Your task to perform on an android device: allow cookies in the chrome app Image 0: 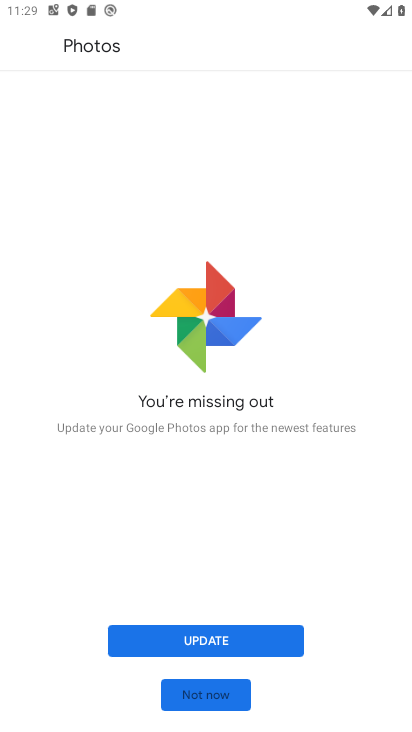
Step 0: press home button
Your task to perform on an android device: allow cookies in the chrome app Image 1: 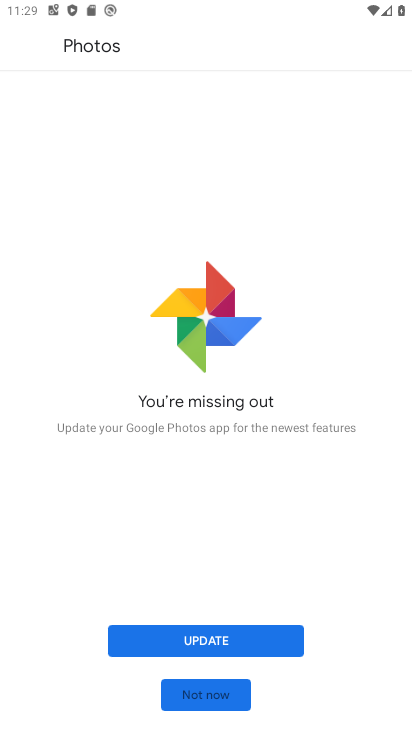
Step 1: press home button
Your task to perform on an android device: allow cookies in the chrome app Image 2: 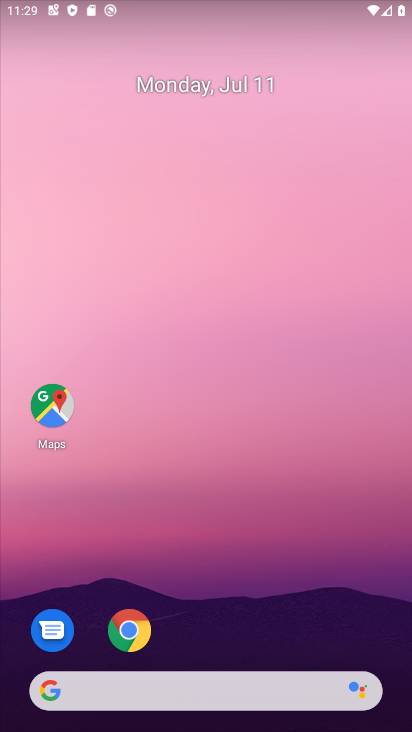
Step 2: click (138, 618)
Your task to perform on an android device: allow cookies in the chrome app Image 3: 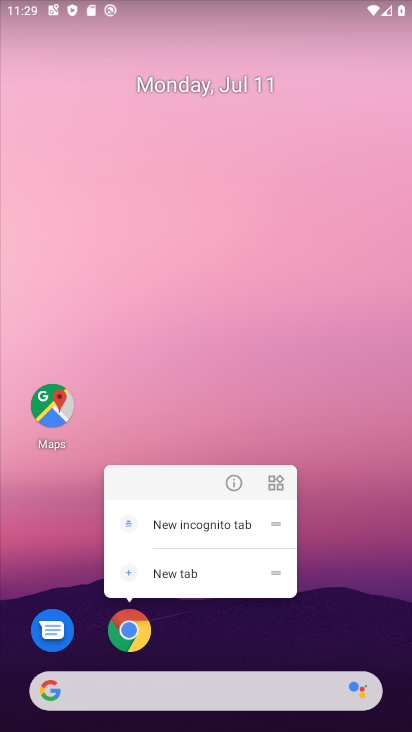
Step 3: click (134, 618)
Your task to perform on an android device: allow cookies in the chrome app Image 4: 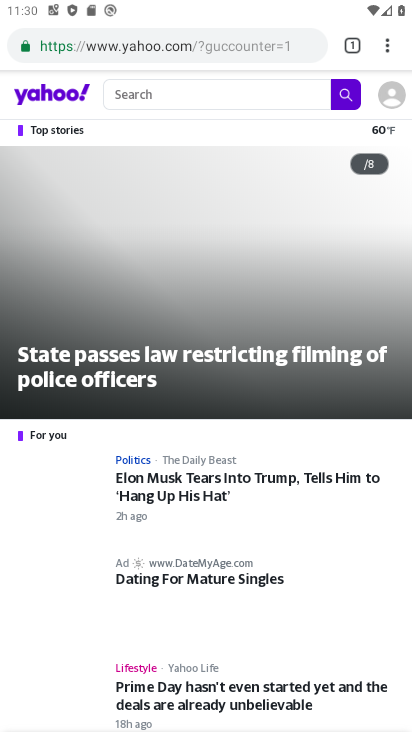
Step 4: click (392, 33)
Your task to perform on an android device: allow cookies in the chrome app Image 5: 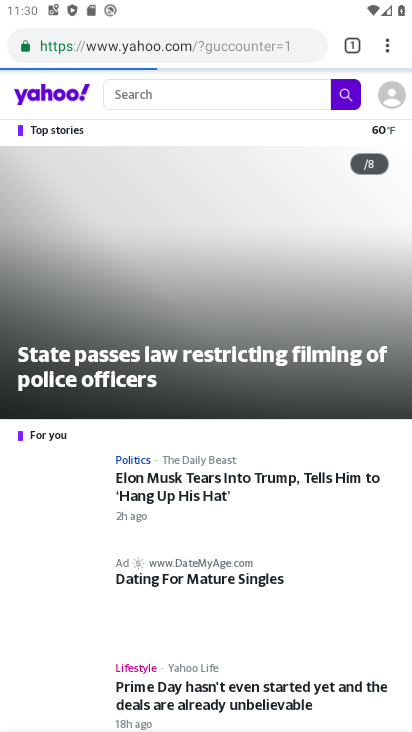
Step 5: click (391, 33)
Your task to perform on an android device: allow cookies in the chrome app Image 6: 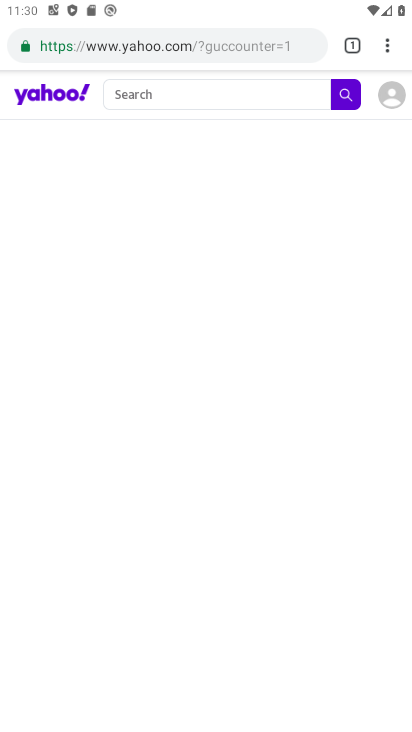
Step 6: click (383, 37)
Your task to perform on an android device: allow cookies in the chrome app Image 7: 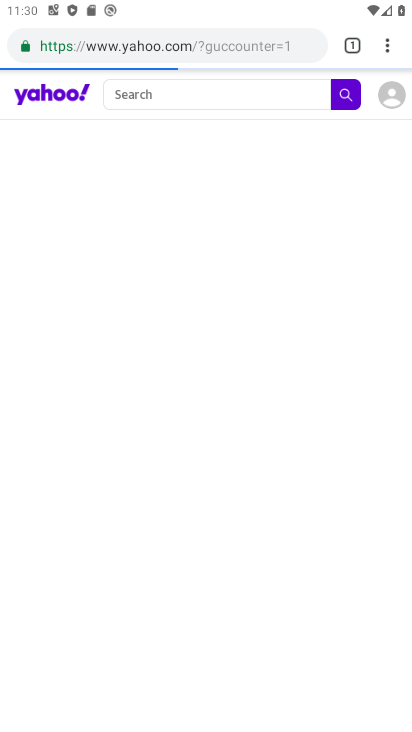
Step 7: click (383, 38)
Your task to perform on an android device: allow cookies in the chrome app Image 8: 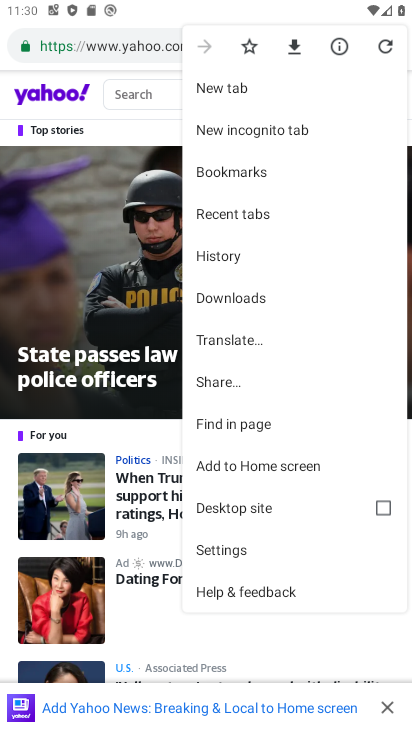
Step 8: click (257, 549)
Your task to perform on an android device: allow cookies in the chrome app Image 9: 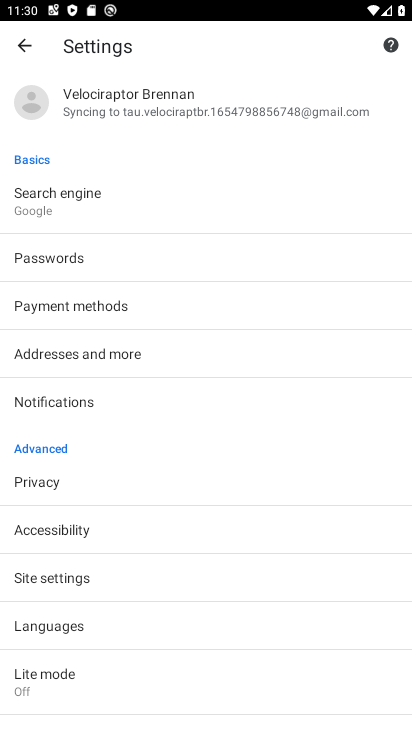
Step 9: drag from (192, 626) to (192, 302)
Your task to perform on an android device: allow cookies in the chrome app Image 10: 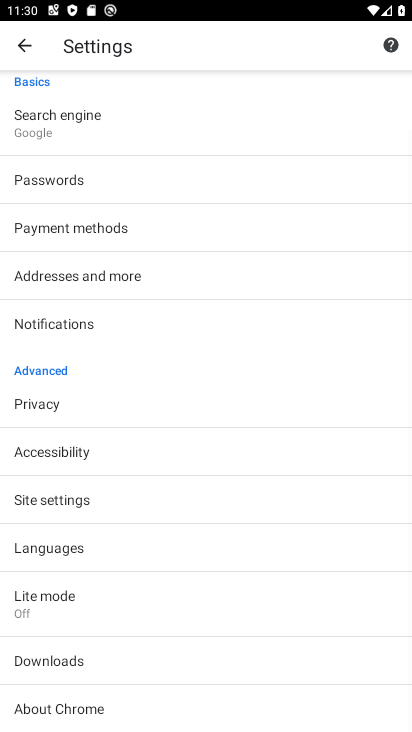
Step 10: click (112, 501)
Your task to perform on an android device: allow cookies in the chrome app Image 11: 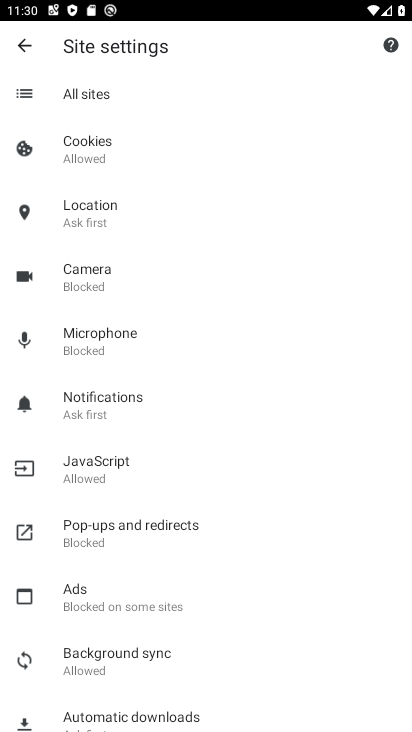
Step 11: click (107, 139)
Your task to perform on an android device: allow cookies in the chrome app Image 12: 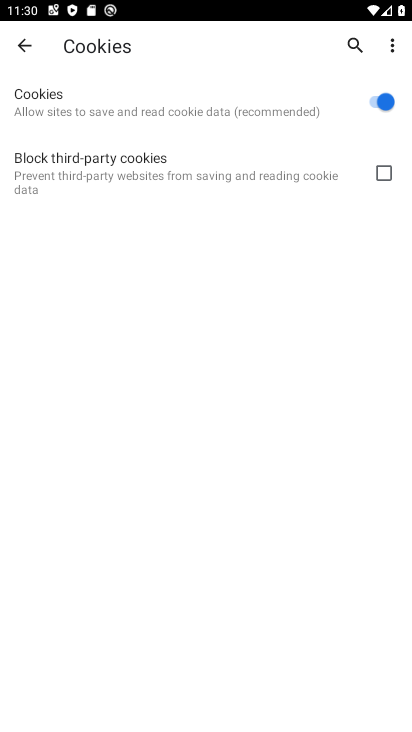
Step 12: task complete